Your task to perform on an android device: Do I have any events tomorrow? Image 0: 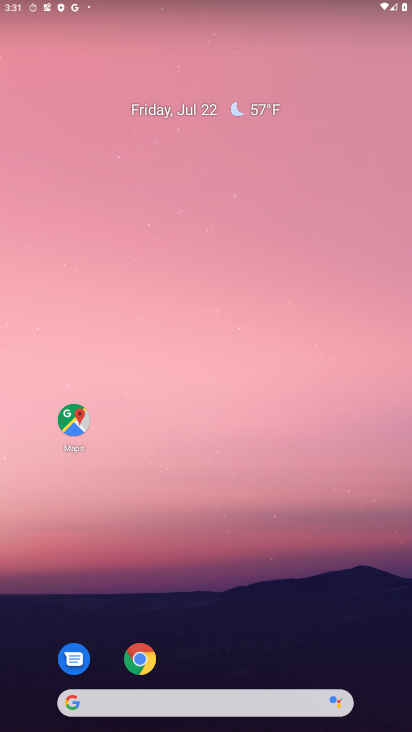
Step 0: drag from (240, 660) to (289, 3)
Your task to perform on an android device: Do I have any events tomorrow? Image 1: 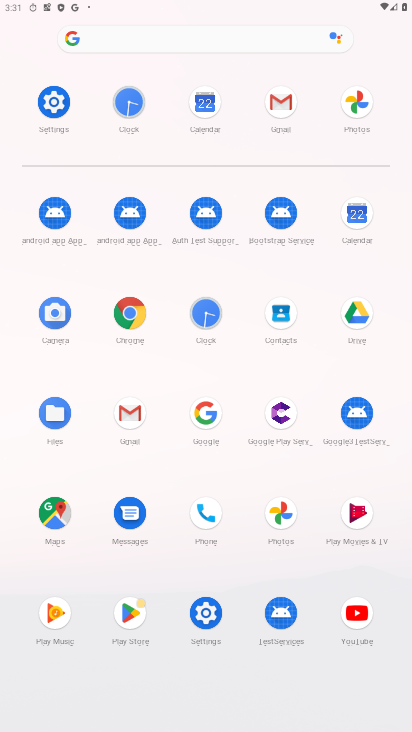
Step 1: click (359, 220)
Your task to perform on an android device: Do I have any events tomorrow? Image 2: 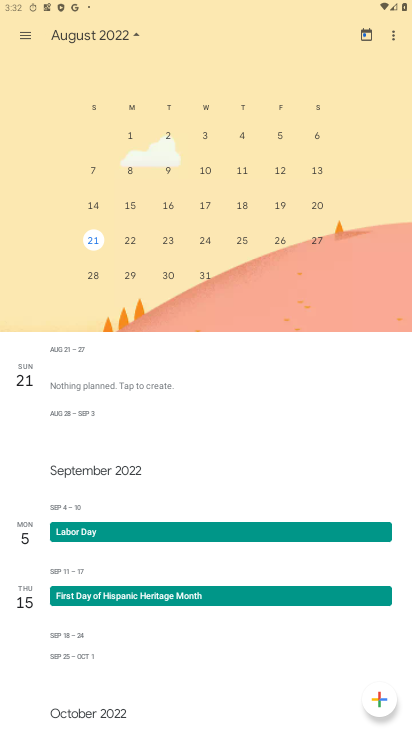
Step 2: drag from (58, 269) to (402, 278)
Your task to perform on an android device: Do I have any events tomorrow? Image 3: 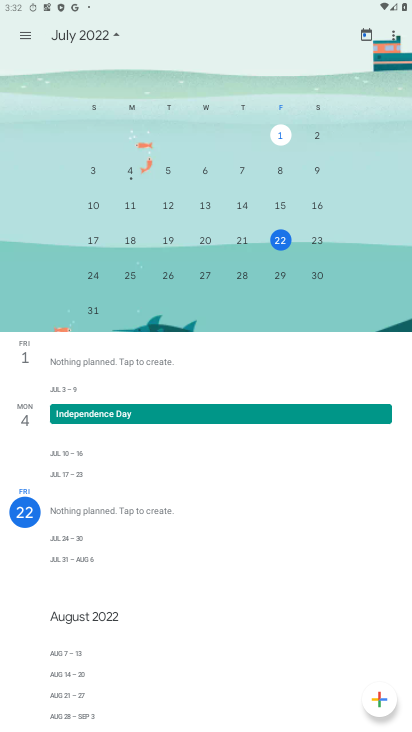
Step 3: click (318, 239)
Your task to perform on an android device: Do I have any events tomorrow? Image 4: 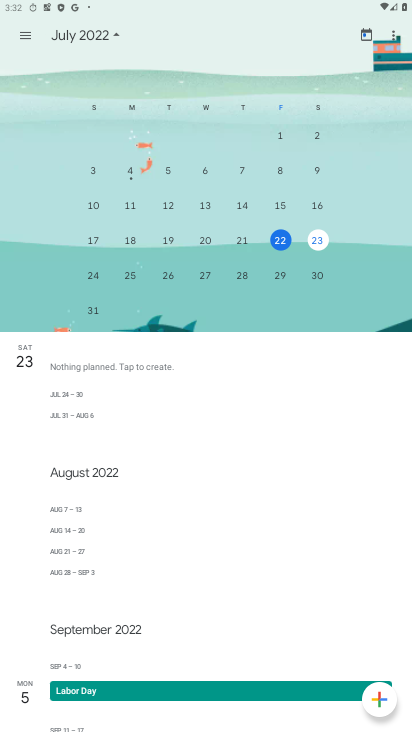
Step 4: task complete